Your task to perform on an android device: Add "logitech g933" to the cart on newegg Image 0: 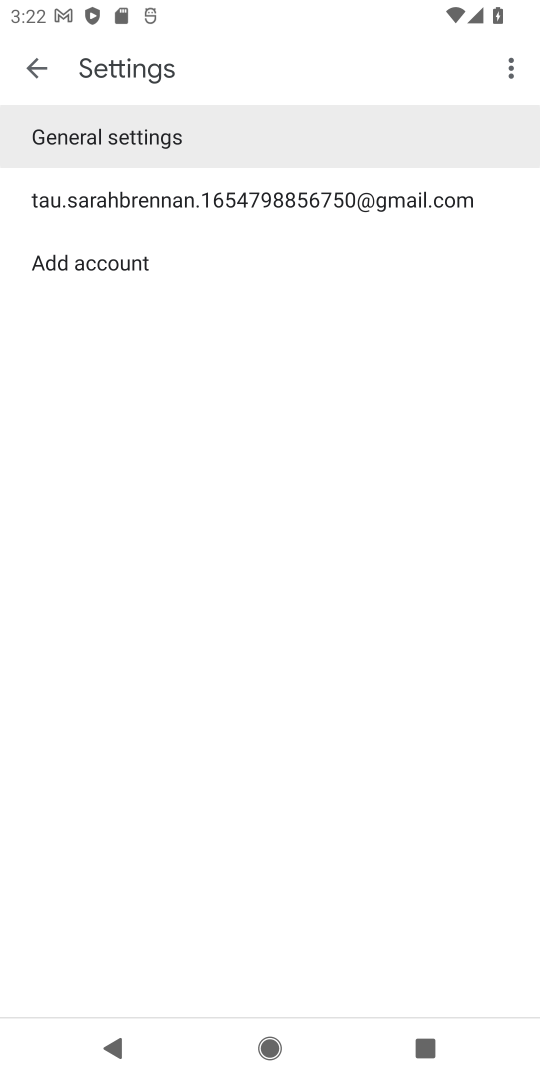
Step 0: press home button
Your task to perform on an android device: Add "logitech g933" to the cart on newegg Image 1: 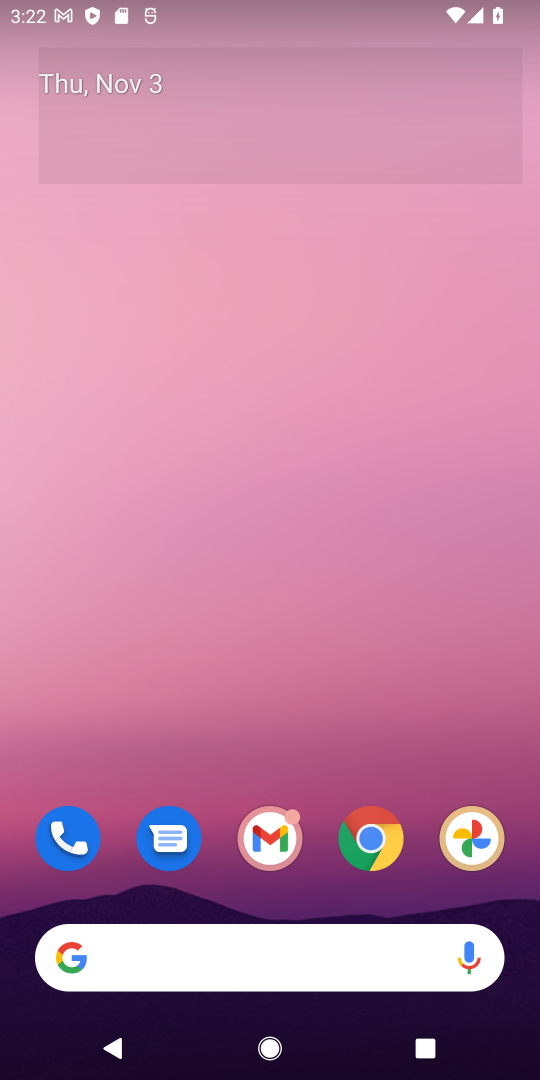
Step 1: drag from (334, 861) to (425, 57)
Your task to perform on an android device: Add "logitech g933" to the cart on newegg Image 2: 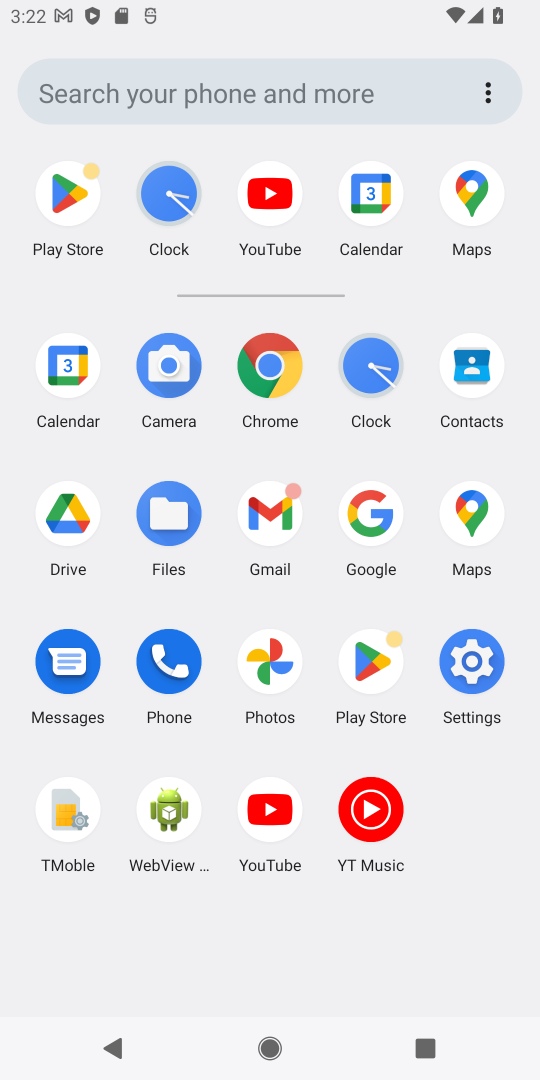
Step 2: click (275, 369)
Your task to perform on an android device: Add "logitech g933" to the cart on newegg Image 3: 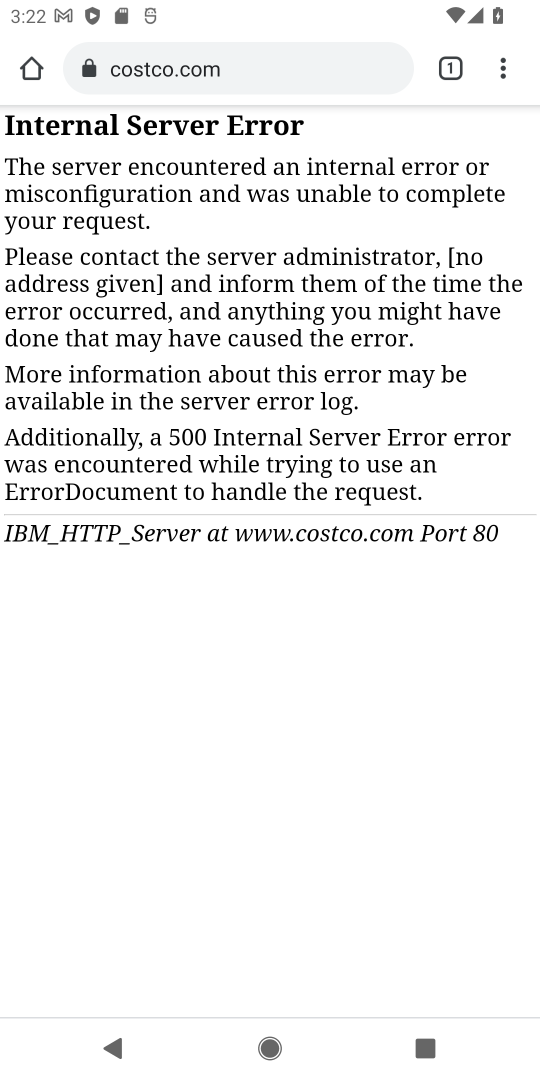
Step 3: click (296, 81)
Your task to perform on an android device: Add "logitech g933" to the cart on newegg Image 4: 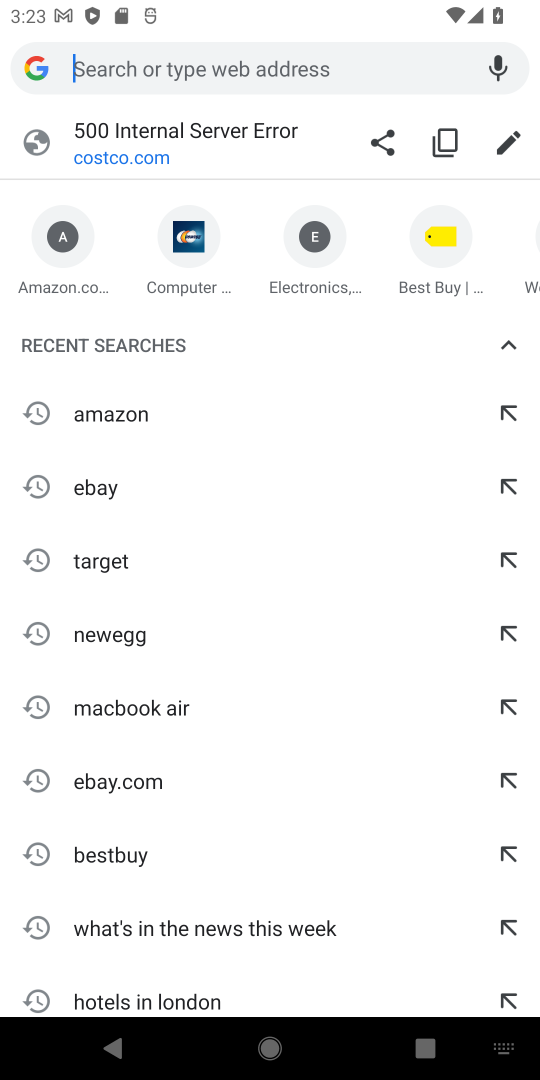
Step 4: type "newegg.com"
Your task to perform on an android device: Add "logitech g933" to the cart on newegg Image 5: 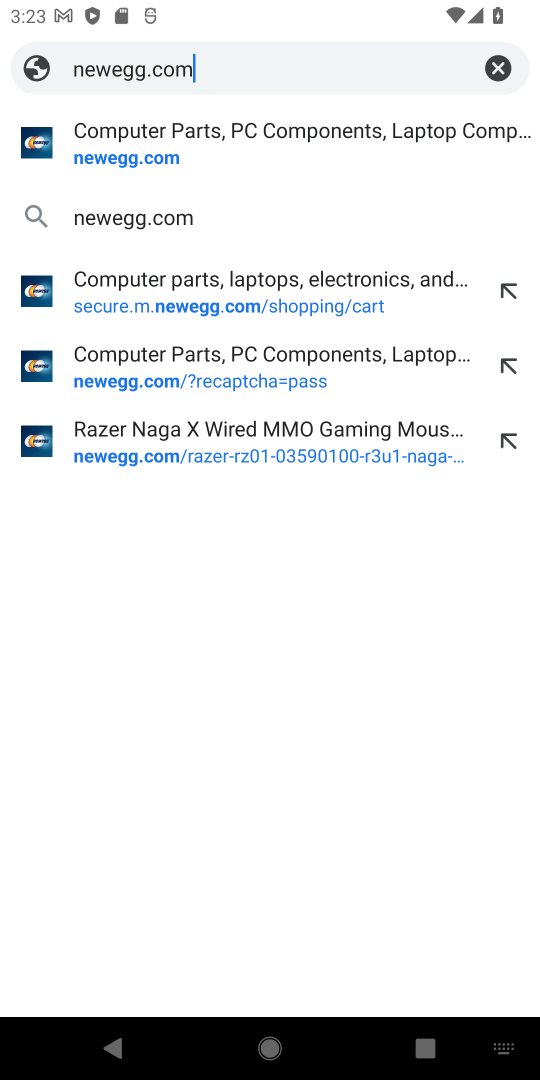
Step 5: press enter
Your task to perform on an android device: Add "logitech g933" to the cart on newegg Image 6: 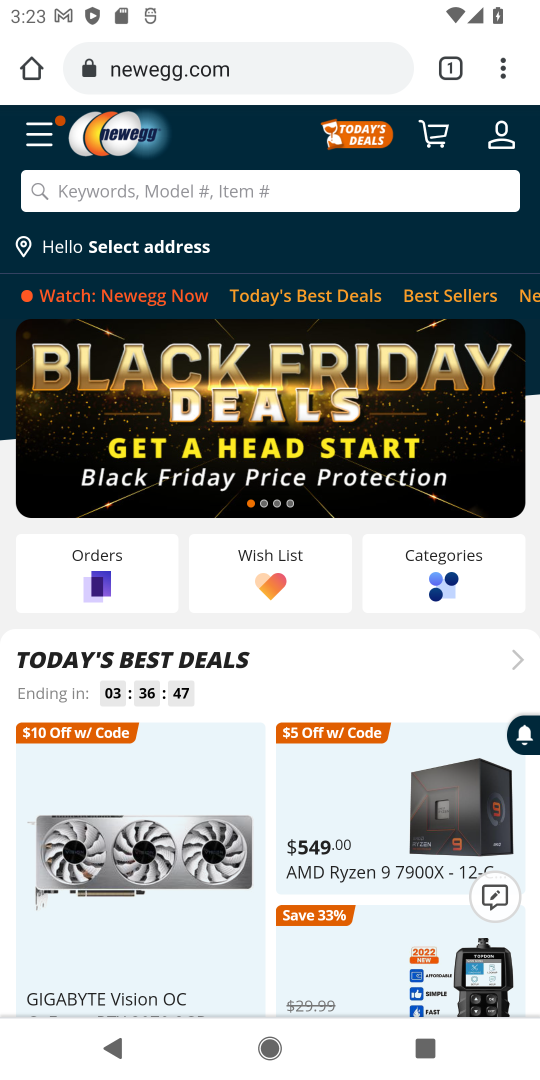
Step 6: click (264, 194)
Your task to perform on an android device: Add "logitech g933" to the cart on newegg Image 7: 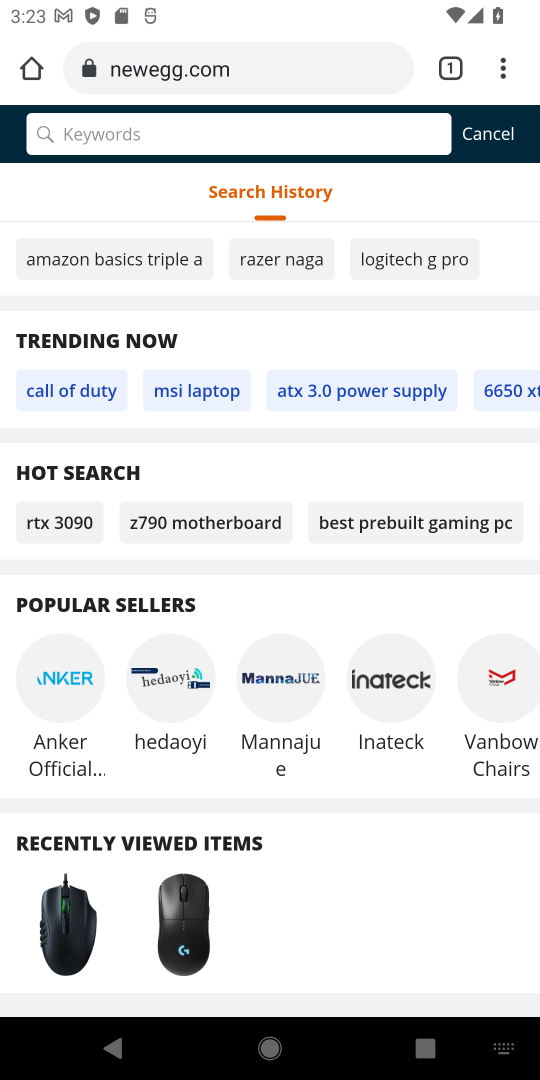
Step 7: type "logitech g933"
Your task to perform on an android device: Add "logitech g933" to the cart on newegg Image 8: 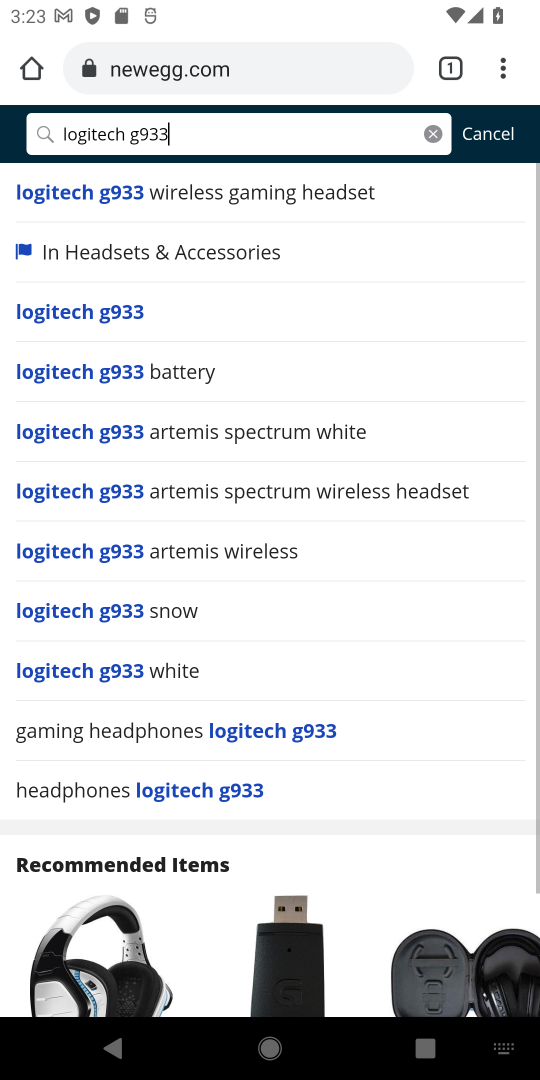
Step 8: press enter
Your task to perform on an android device: Add "logitech g933" to the cart on newegg Image 9: 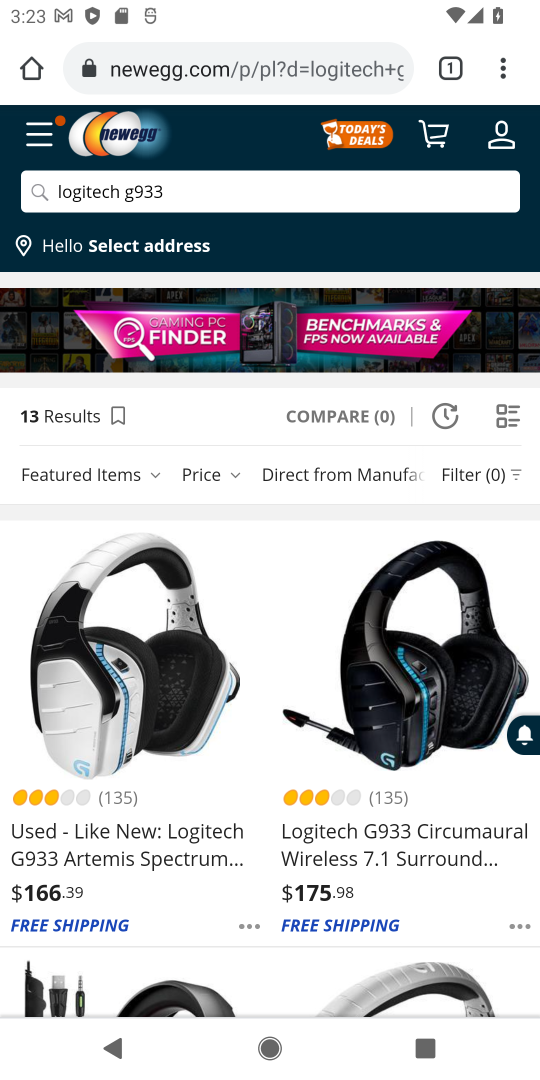
Step 9: click (155, 827)
Your task to perform on an android device: Add "logitech g933" to the cart on newegg Image 10: 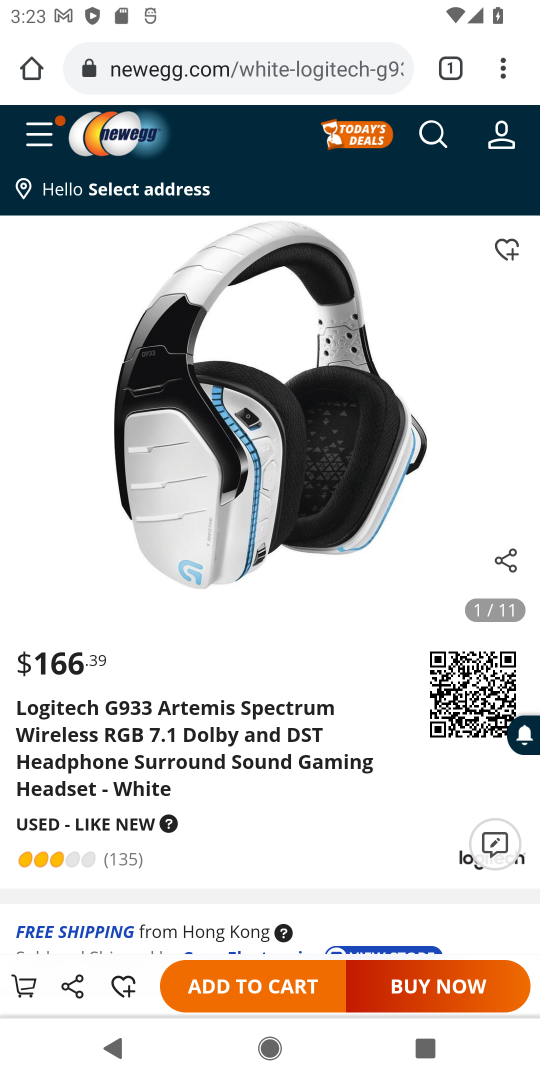
Step 10: click (248, 990)
Your task to perform on an android device: Add "logitech g933" to the cart on newegg Image 11: 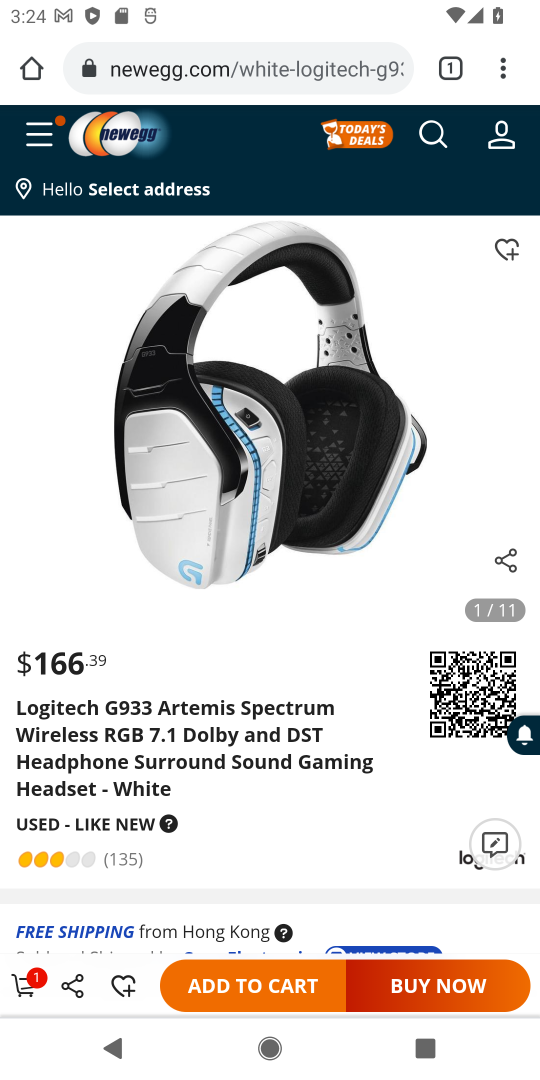
Step 11: click (197, 984)
Your task to perform on an android device: Add "logitech g933" to the cart on newegg Image 12: 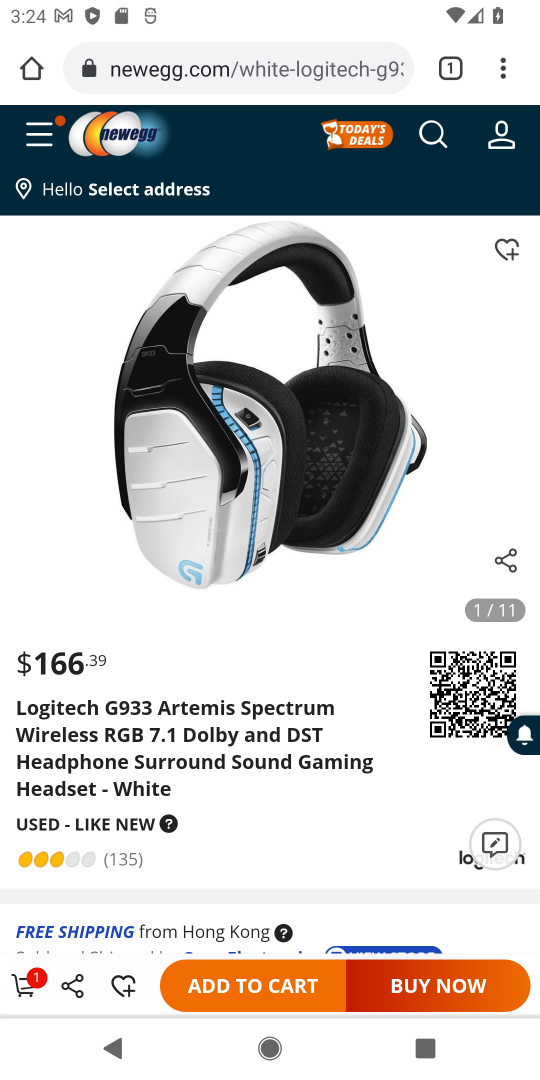
Step 12: task complete